Your task to perform on an android device: Open Google Chrome and open the bookmarks view Image 0: 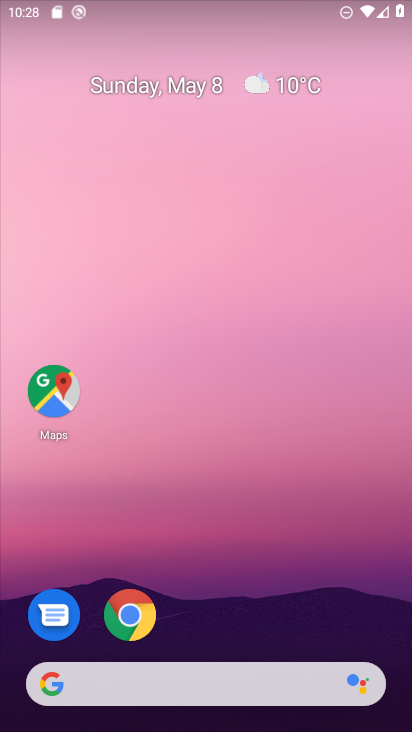
Step 0: press home button
Your task to perform on an android device: Open Google Chrome and open the bookmarks view Image 1: 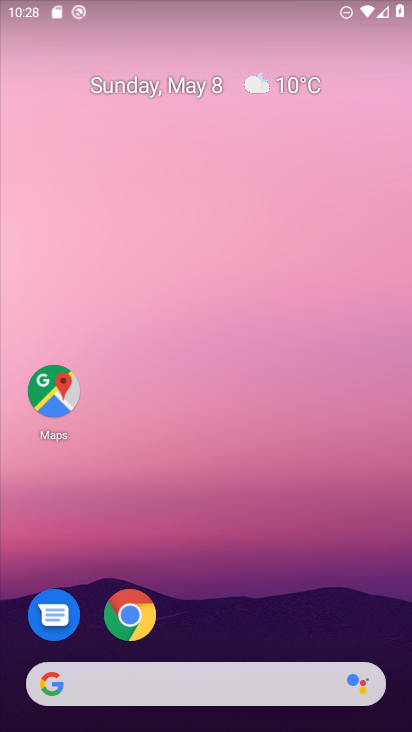
Step 1: drag from (300, 628) to (341, 80)
Your task to perform on an android device: Open Google Chrome and open the bookmarks view Image 2: 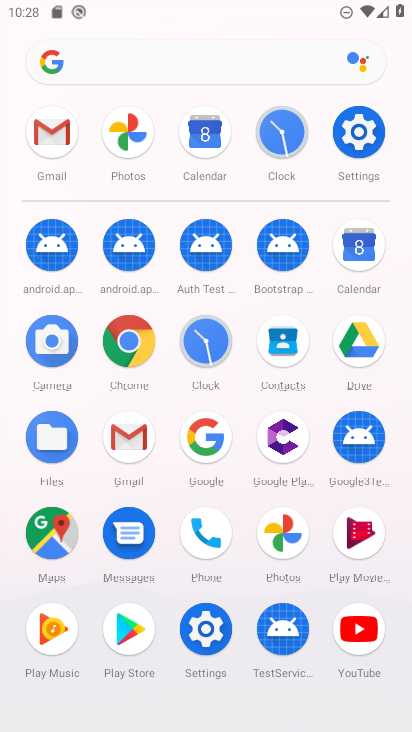
Step 2: click (125, 347)
Your task to perform on an android device: Open Google Chrome and open the bookmarks view Image 3: 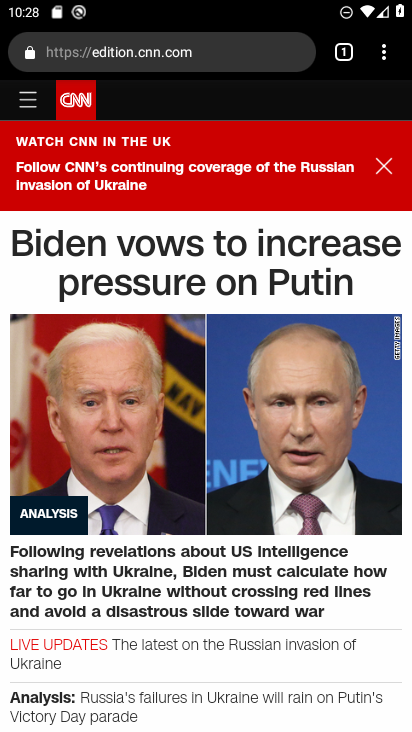
Step 3: task complete